Your task to perform on an android device: check android version Image 0: 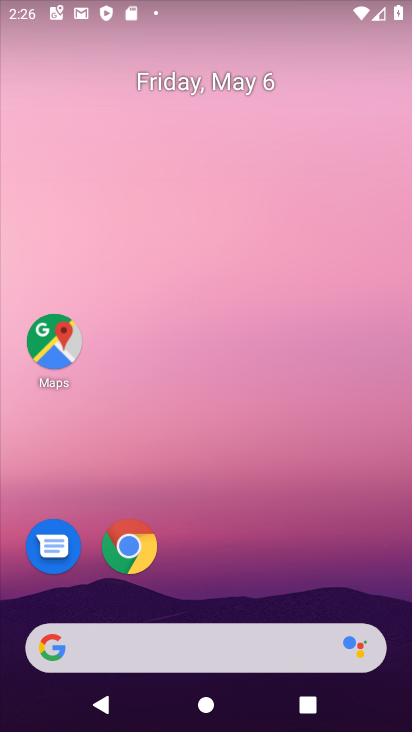
Step 0: drag from (274, 465) to (267, 132)
Your task to perform on an android device: check android version Image 1: 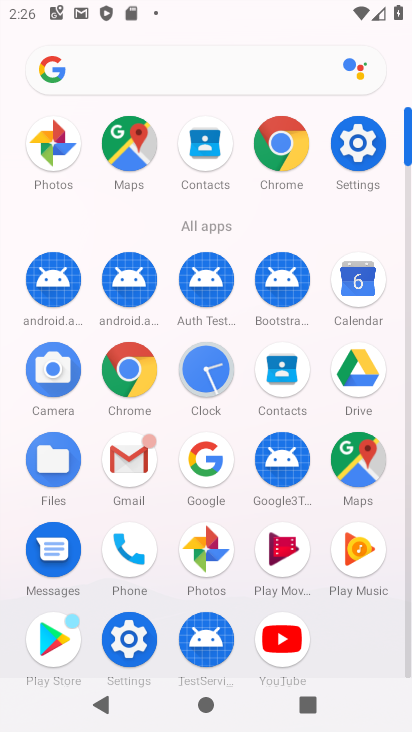
Step 1: click (363, 146)
Your task to perform on an android device: check android version Image 2: 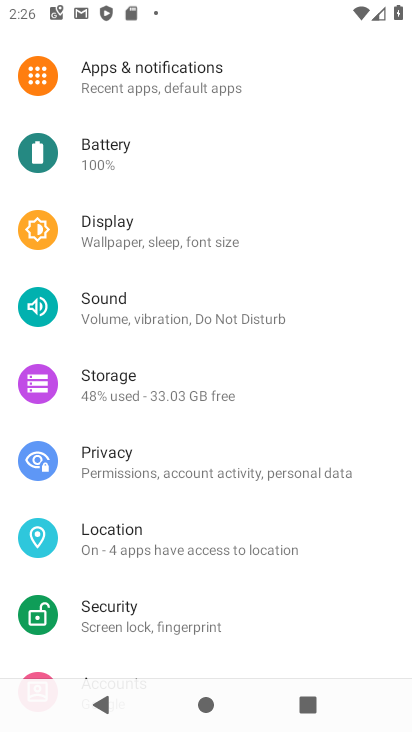
Step 2: drag from (219, 624) to (244, 160)
Your task to perform on an android device: check android version Image 3: 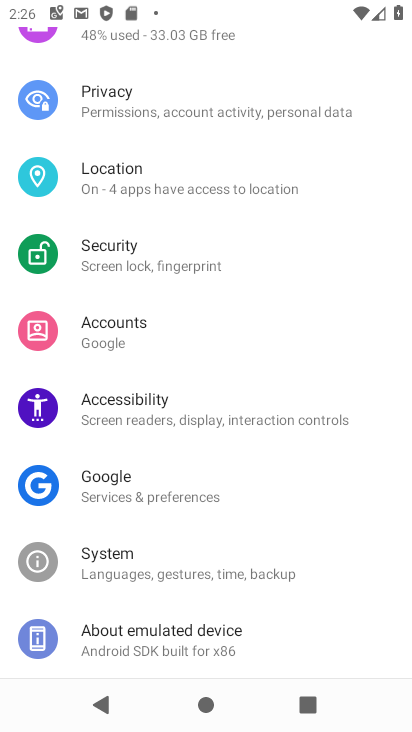
Step 3: click (241, 637)
Your task to perform on an android device: check android version Image 4: 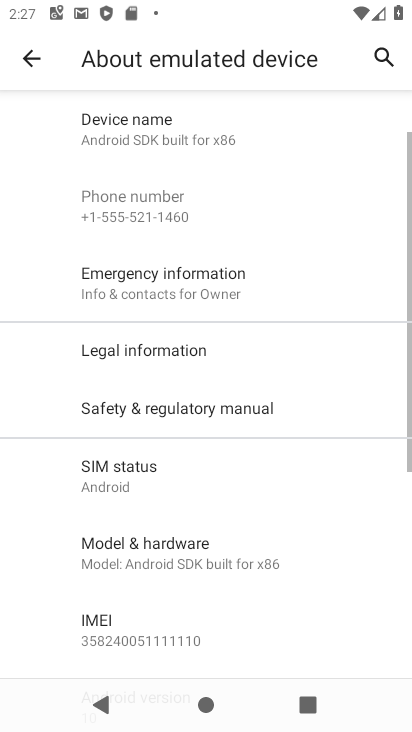
Step 4: drag from (222, 531) to (244, 223)
Your task to perform on an android device: check android version Image 5: 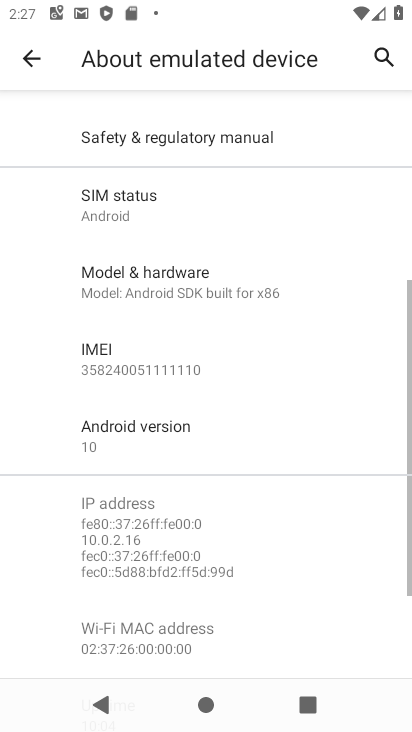
Step 5: click (190, 428)
Your task to perform on an android device: check android version Image 6: 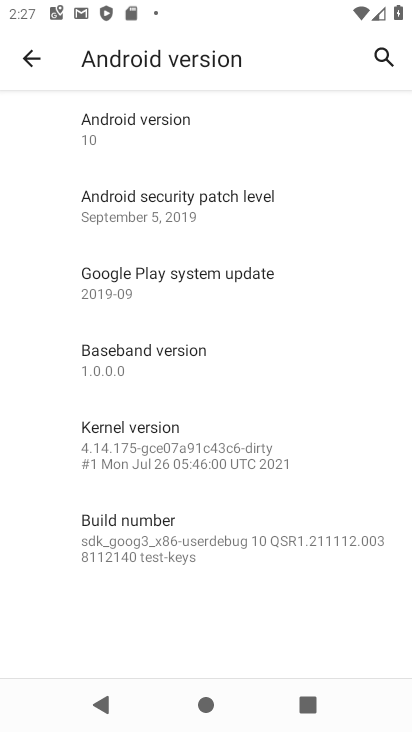
Step 6: task complete